Your task to perform on an android device: Is it going to rain this weekend? Image 0: 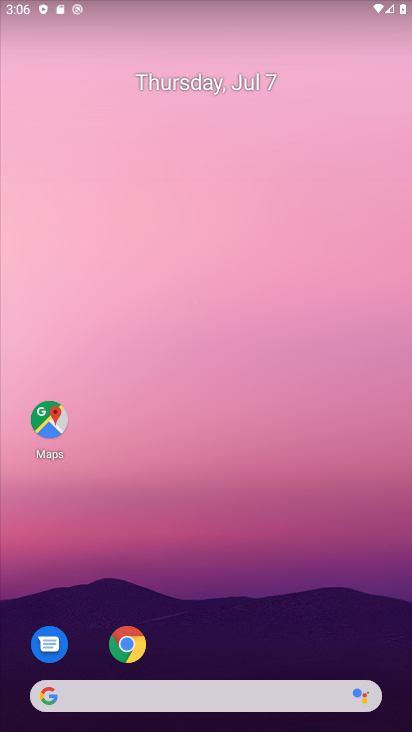
Step 0: drag from (208, 655) to (62, 14)
Your task to perform on an android device: Is it going to rain this weekend? Image 1: 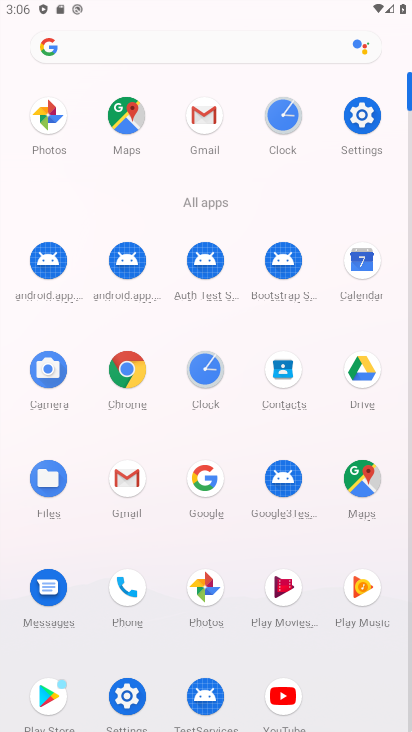
Step 1: click (203, 483)
Your task to perform on an android device: Is it going to rain this weekend? Image 2: 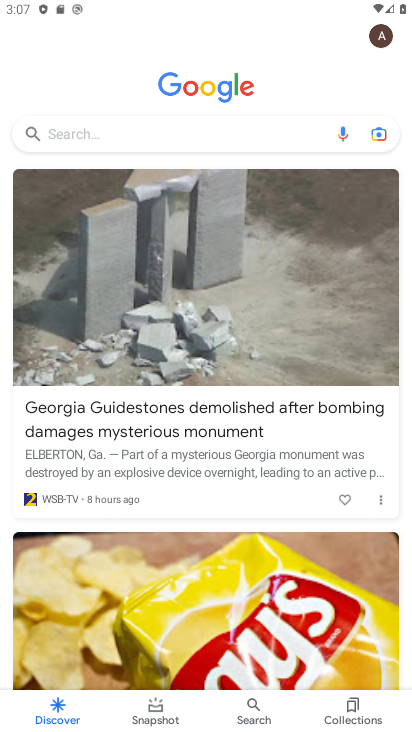
Step 2: click (99, 142)
Your task to perform on an android device: Is it going to rain this weekend? Image 3: 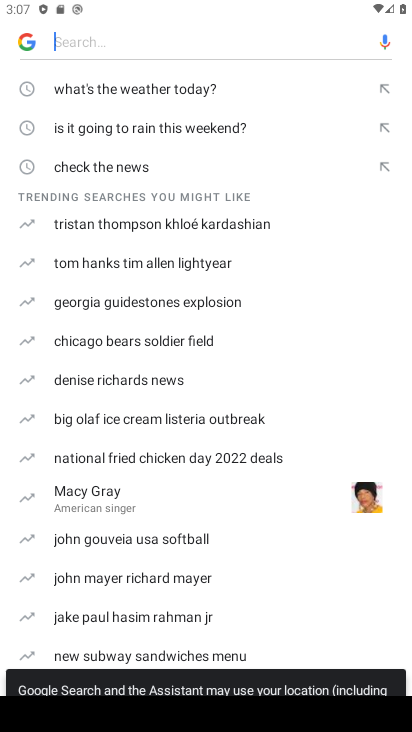
Step 3: click (59, 81)
Your task to perform on an android device: Is it going to rain this weekend? Image 4: 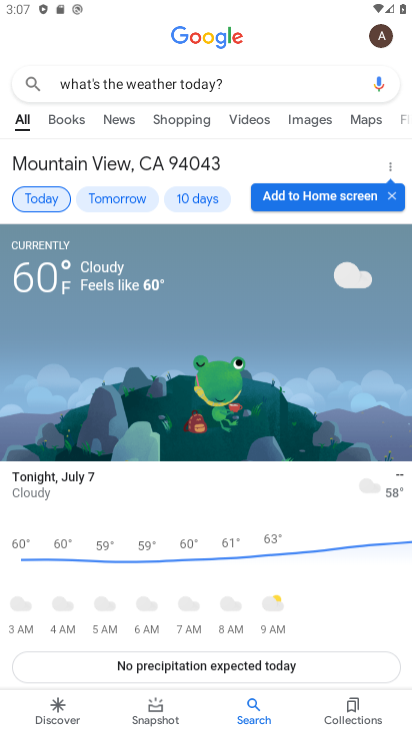
Step 4: click (192, 191)
Your task to perform on an android device: Is it going to rain this weekend? Image 5: 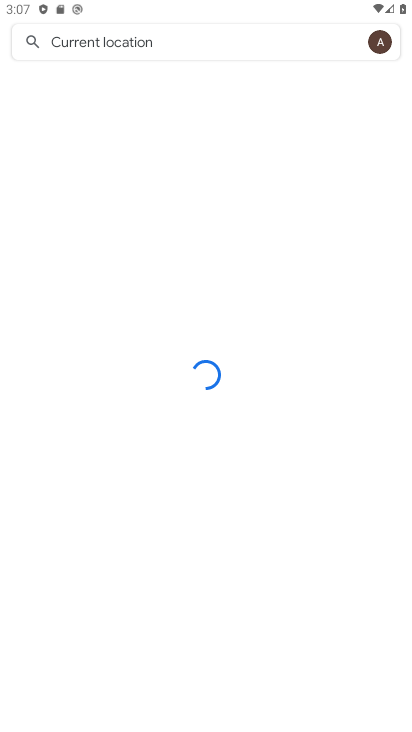
Step 5: task complete